Your task to perform on an android device: turn off wifi Image 0: 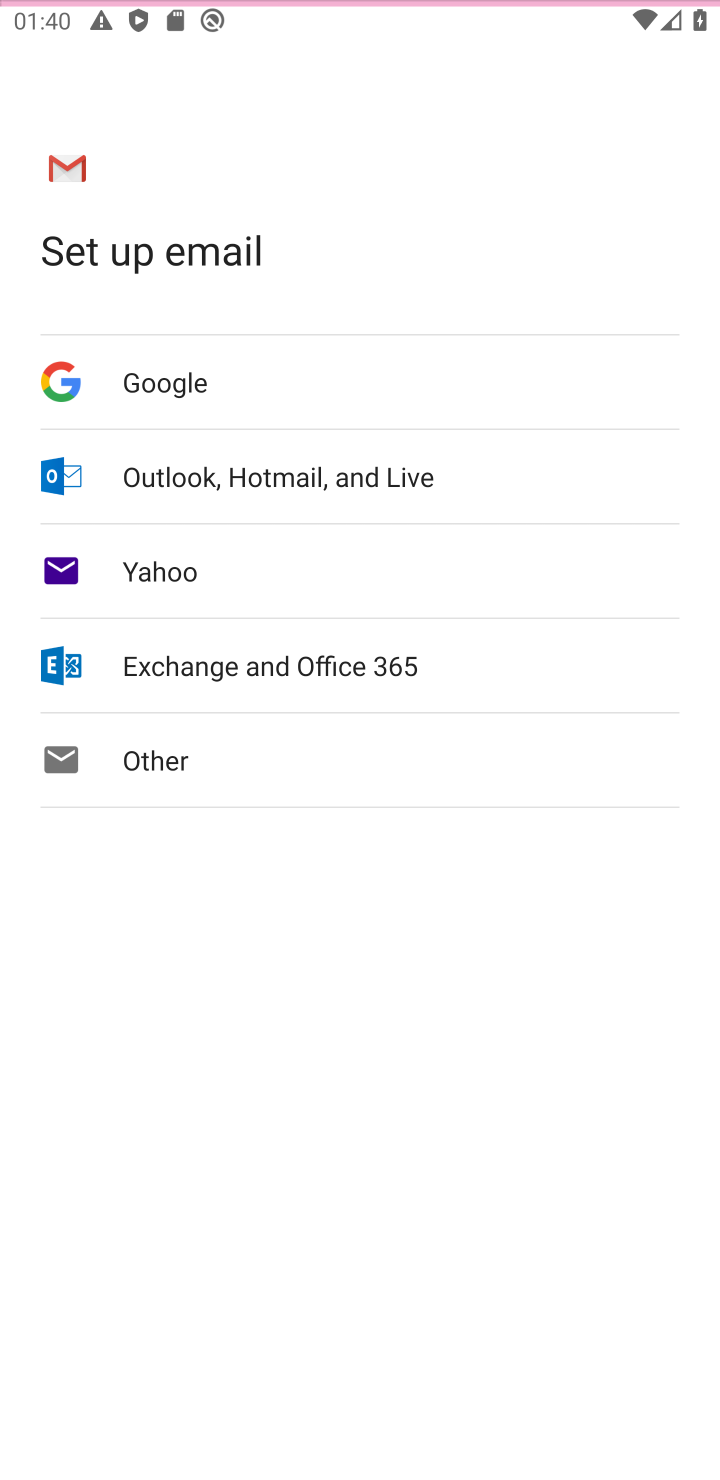
Step 0: press home button
Your task to perform on an android device: turn off wifi Image 1: 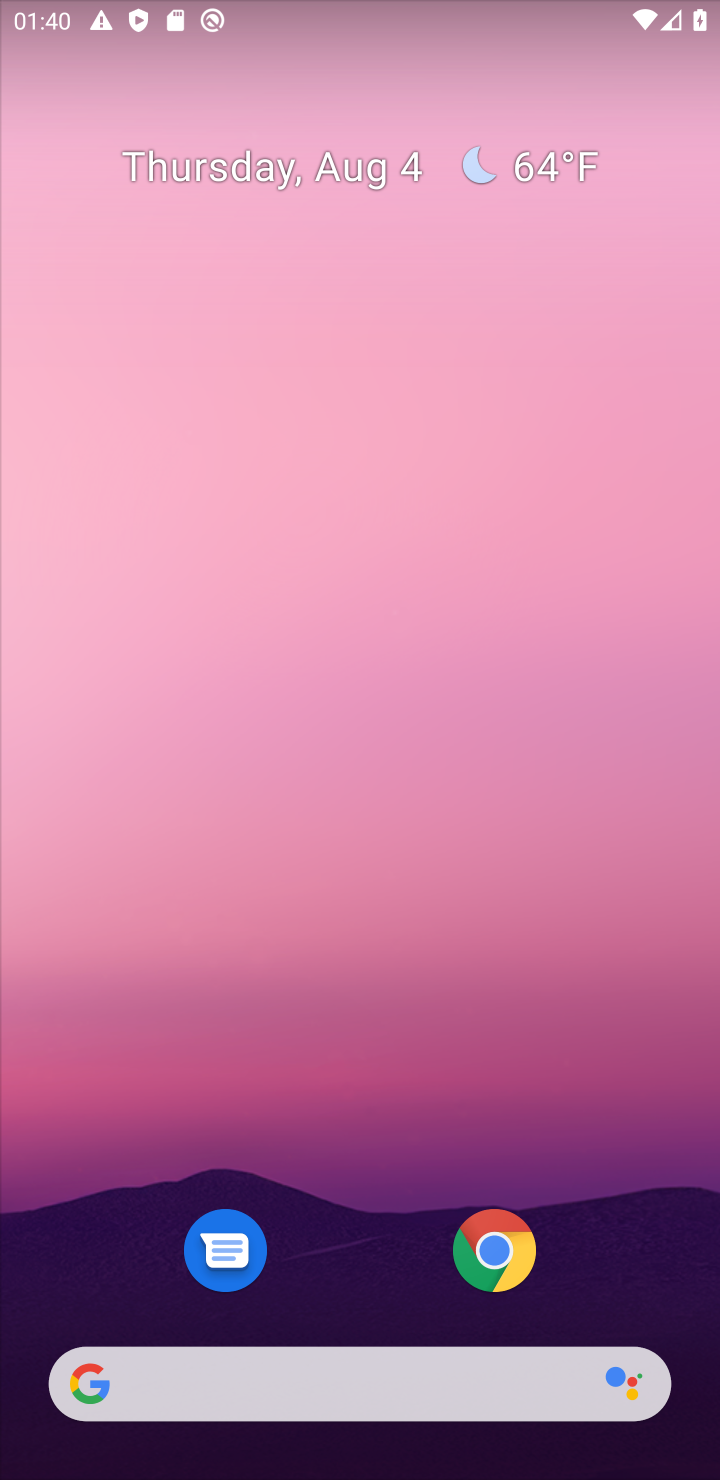
Step 1: drag from (339, 1314) to (236, 382)
Your task to perform on an android device: turn off wifi Image 2: 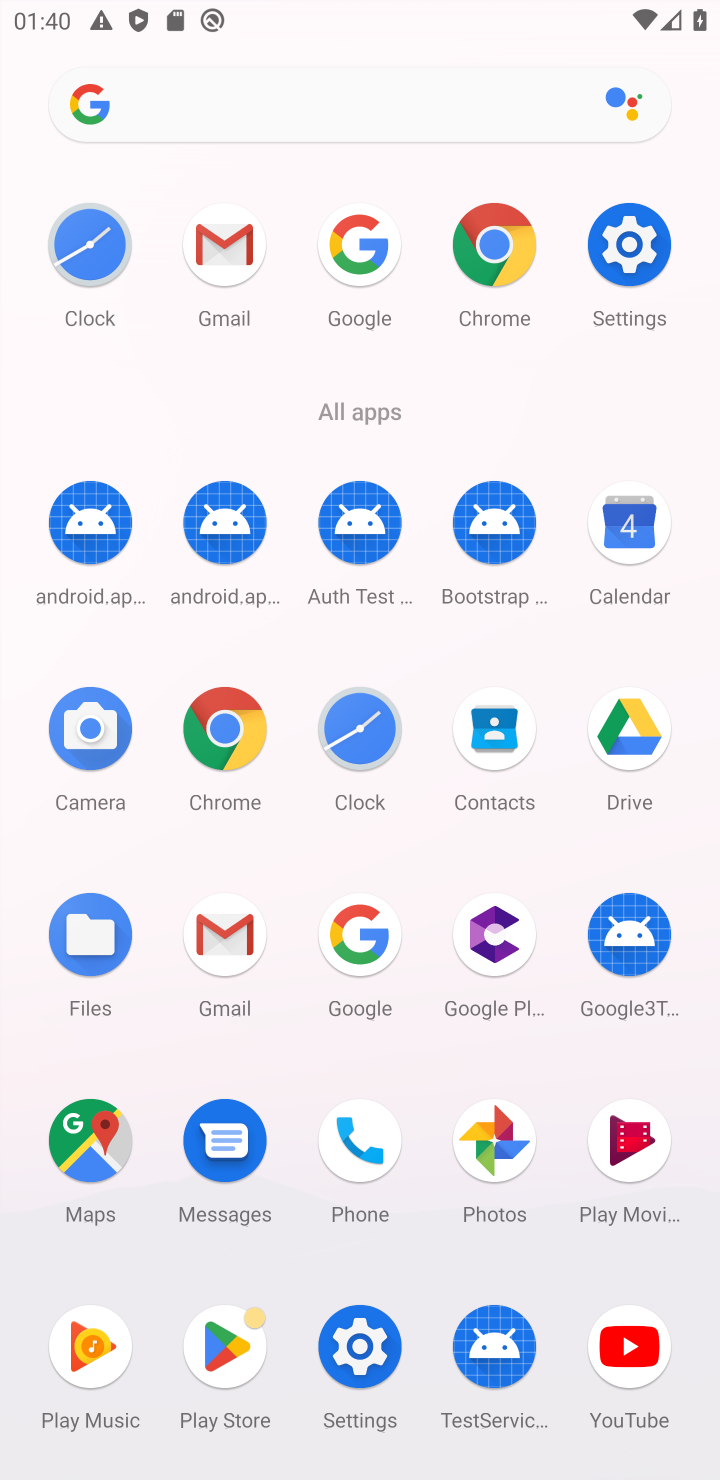
Step 2: click (631, 250)
Your task to perform on an android device: turn off wifi Image 3: 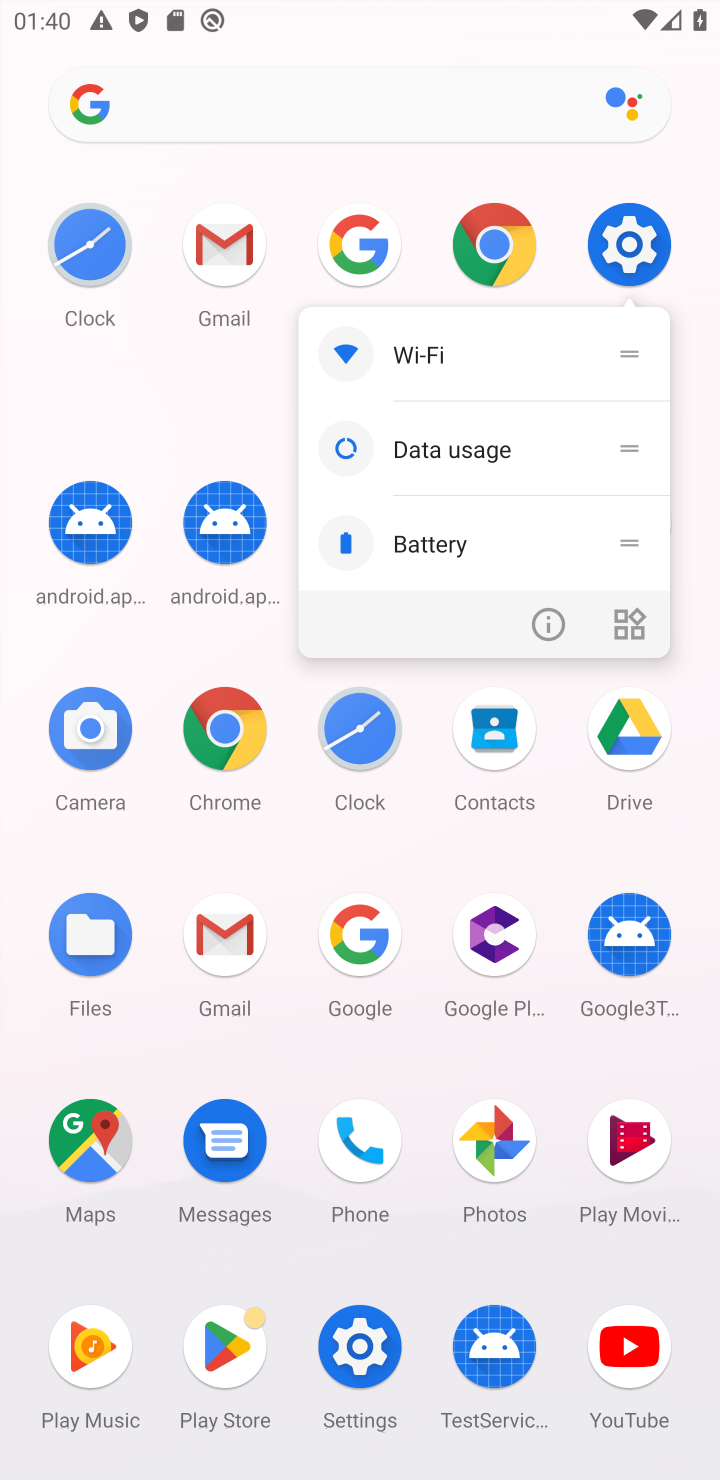
Step 3: click (627, 253)
Your task to perform on an android device: turn off wifi Image 4: 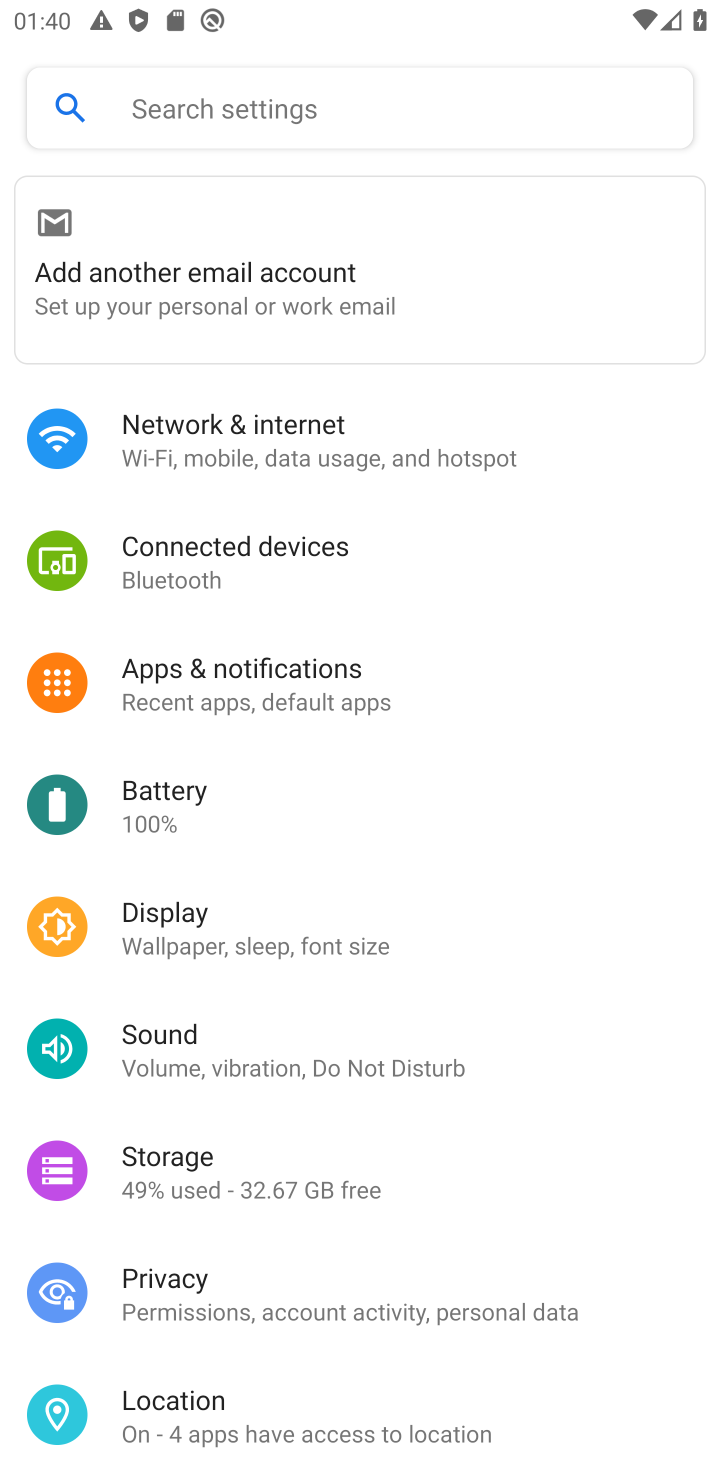
Step 4: click (346, 458)
Your task to perform on an android device: turn off wifi Image 5: 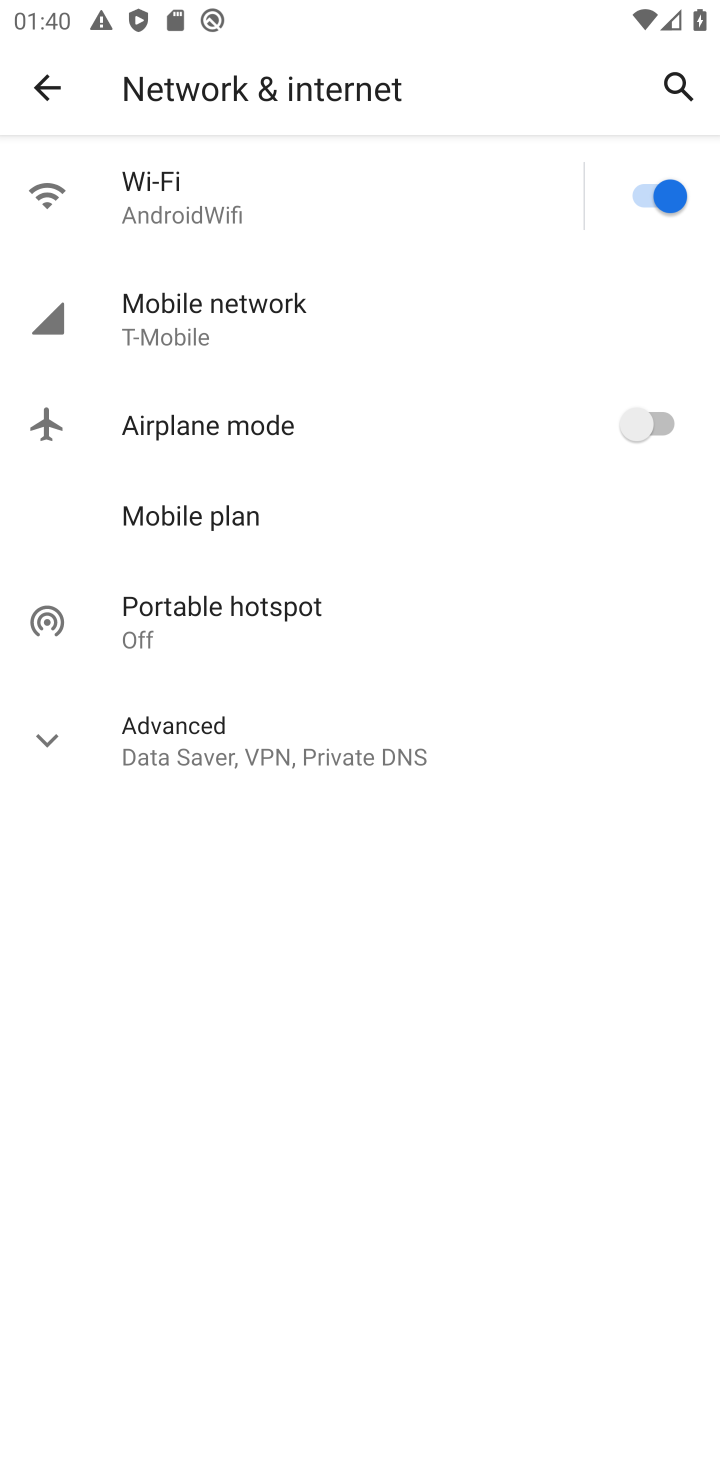
Step 5: click (658, 203)
Your task to perform on an android device: turn off wifi Image 6: 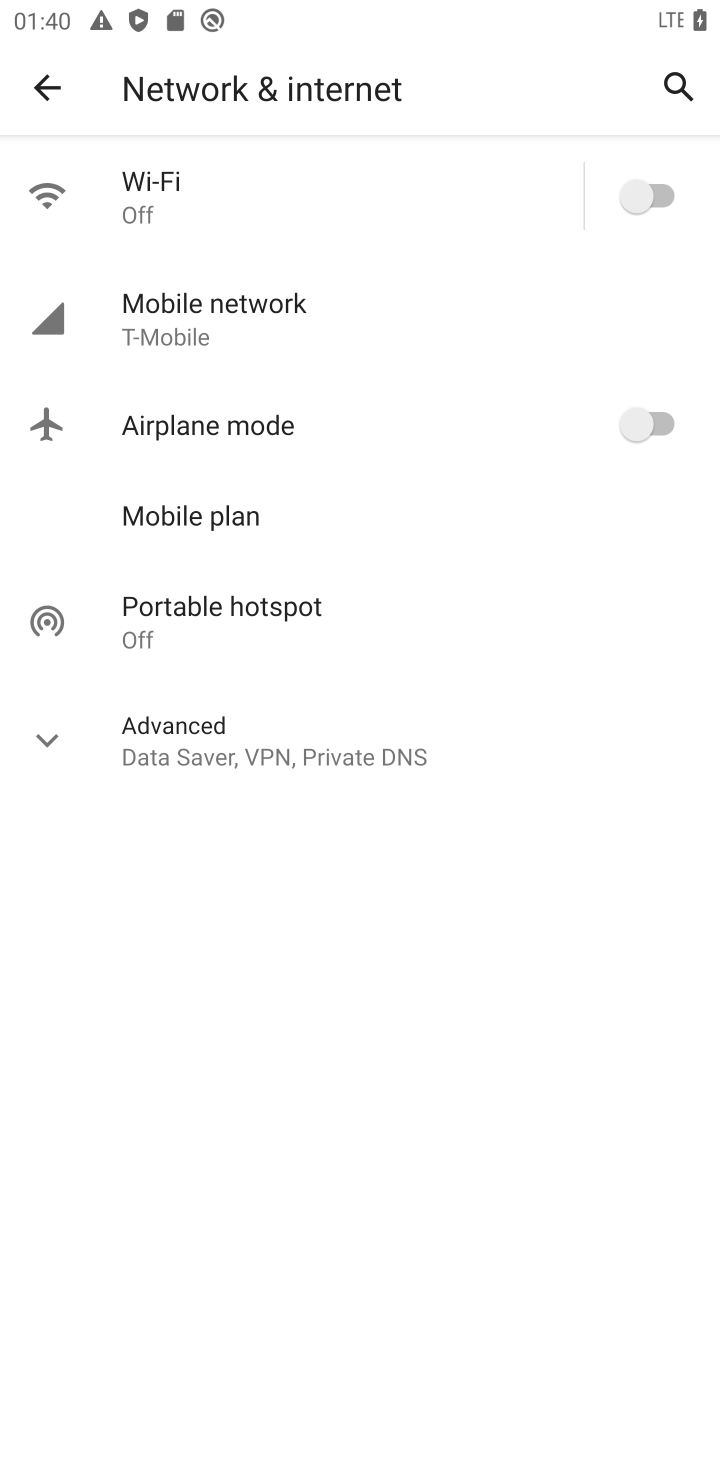
Step 6: task complete